Your task to perform on an android device: check android version Image 0: 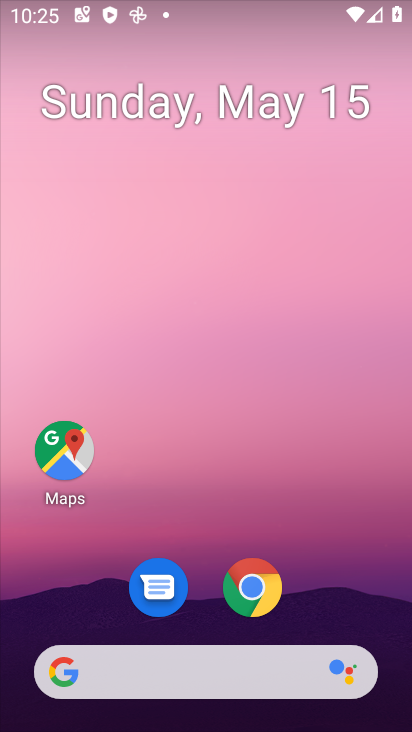
Step 0: drag from (384, 612) to (281, 46)
Your task to perform on an android device: check android version Image 1: 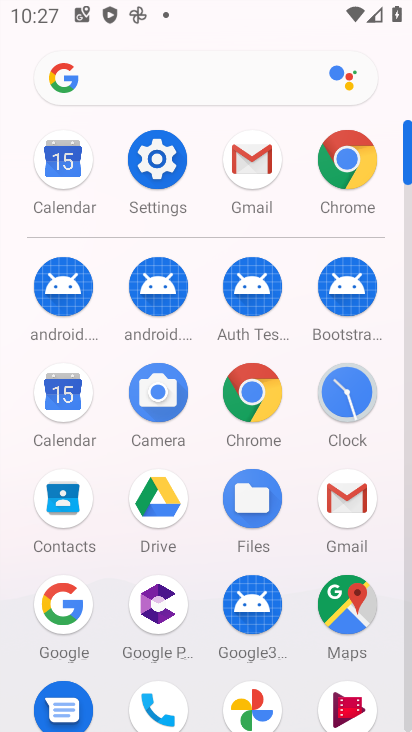
Step 1: drag from (222, 651) to (230, 266)
Your task to perform on an android device: check android version Image 2: 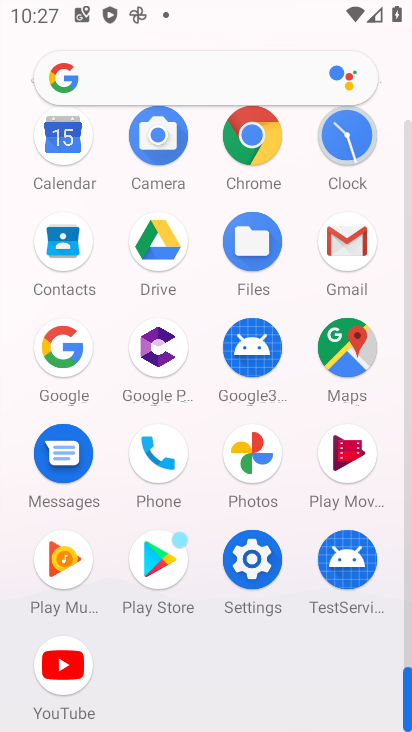
Step 2: click (243, 568)
Your task to perform on an android device: check android version Image 3: 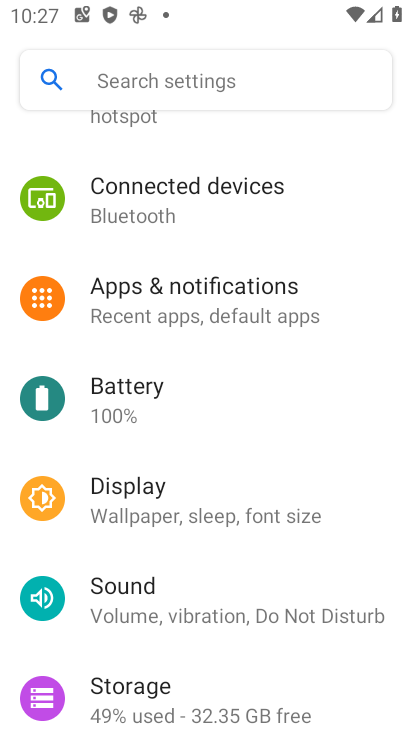
Step 3: drag from (185, 653) to (185, 113)
Your task to perform on an android device: check android version Image 4: 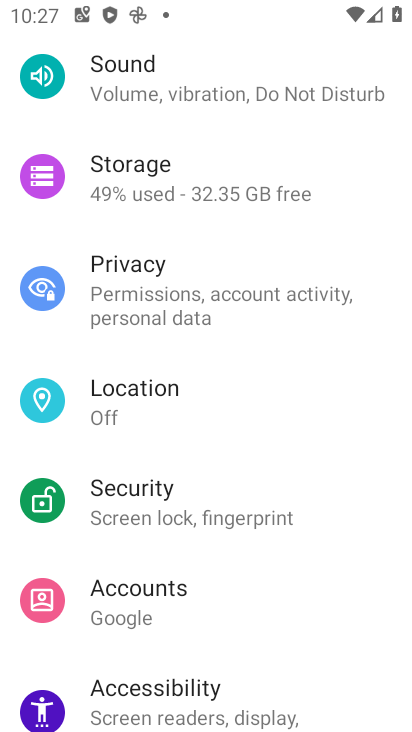
Step 4: drag from (197, 594) to (188, 135)
Your task to perform on an android device: check android version Image 5: 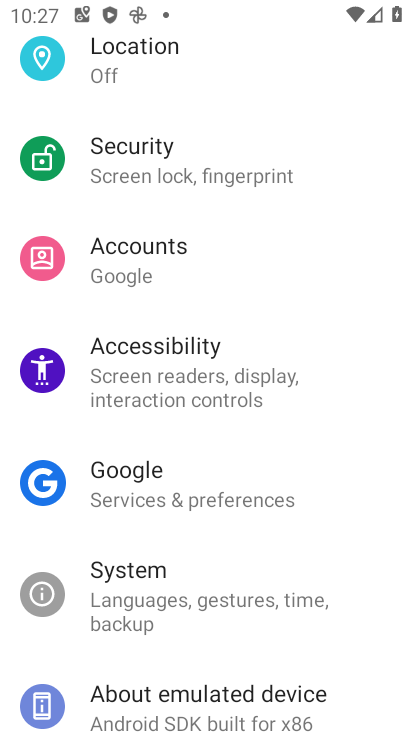
Step 5: click (193, 689)
Your task to perform on an android device: check android version Image 6: 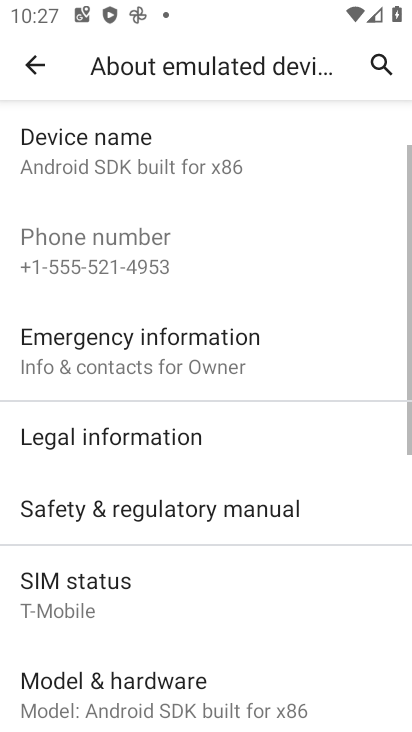
Step 6: drag from (172, 606) to (198, 233)
Your task to perform on an android device: check android version Image 7: 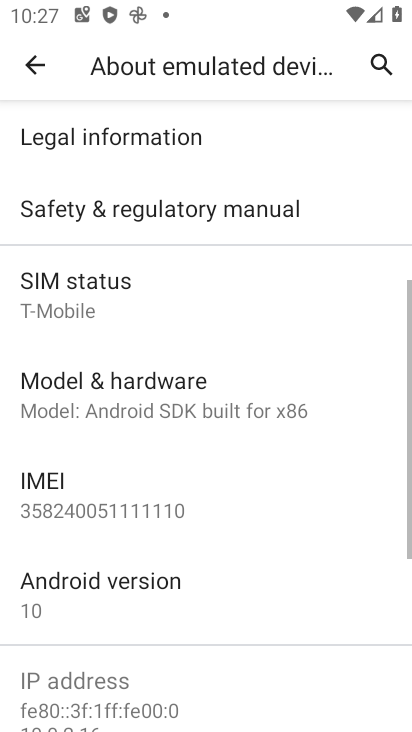
Step 7: click (170, 596)
Your task to perform on an android device: check android version Image 8: 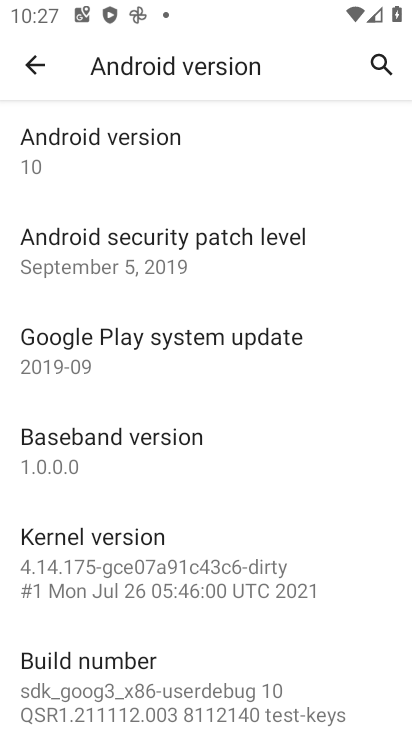
Step 8: task complete